Your task to perform on an android device: remove spam from my inbox in the gmail app Image 0: 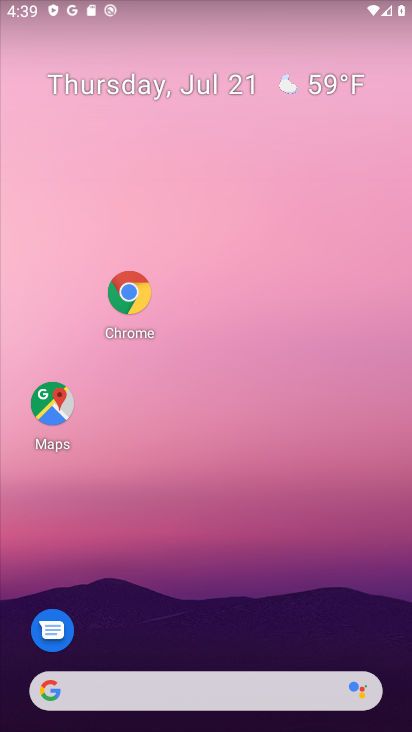
Step 0: drag from (178, 690) to (164, 204)
Your task to perform on an android device: remove spam from my inbox in the gmail app Image 1: 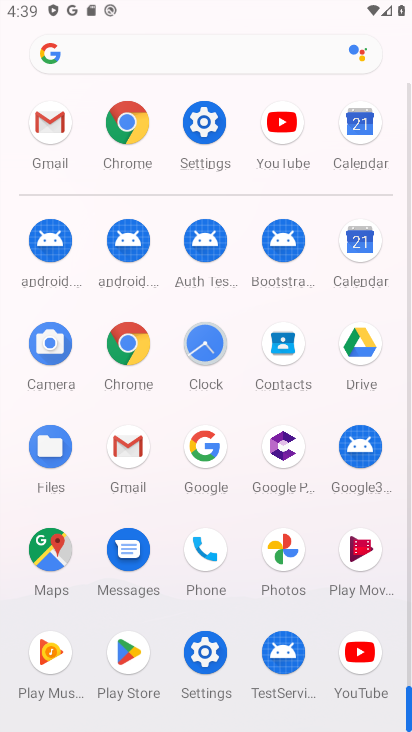
Step 1: click (130, 449)
Your task to perform on an android device: remove spam from my inbox in the gmail app Image 2: 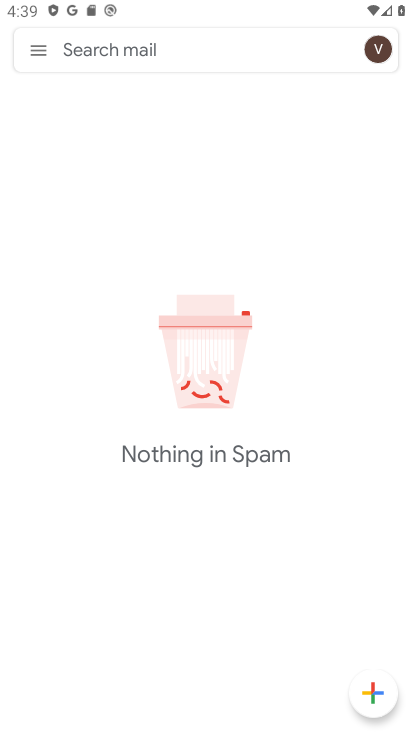
Step 2: click (26, 32)
Your task to perform on an android device: remove spam from my inbox in the gmail app Image 3: 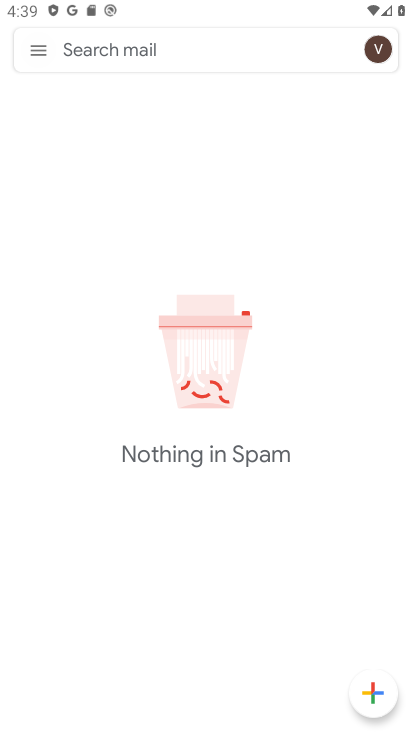
Step 3: click (37, 48)
Your task to perform on an android device: remove spam from my inbox in the gmail app Image 4: 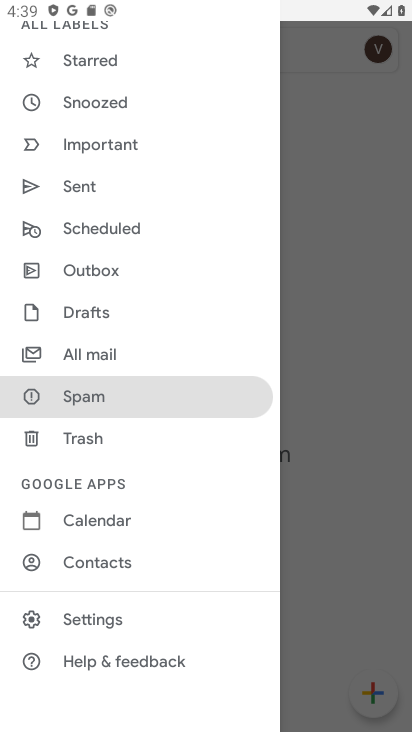
Step 4: click (96, 383)
Your task to perform on an android device: remove spam from my inbox in the gmail app Image 5: 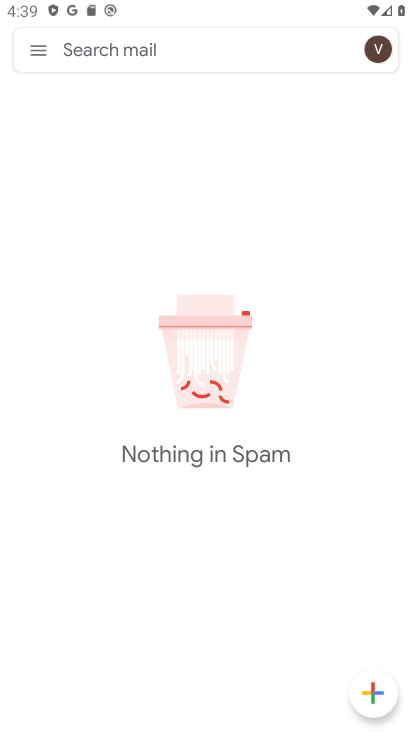
Step 5: task complete